Your task to perform on an android device: Go to network settings Image 0: 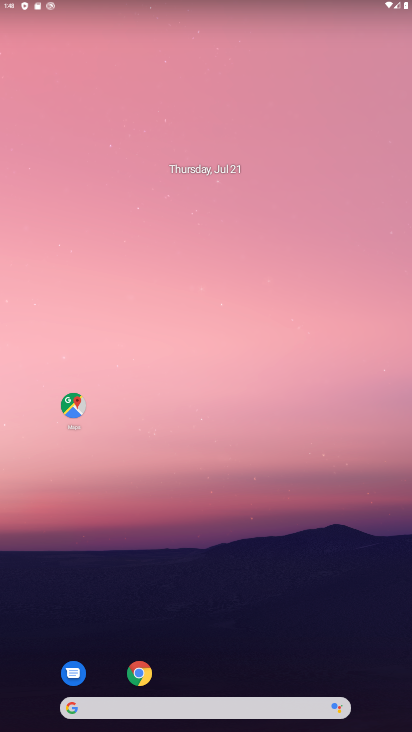
Step 0: drag from (182, 601) to (186, 88)
Your task to perform on an android device: Go to network settings Image 1: 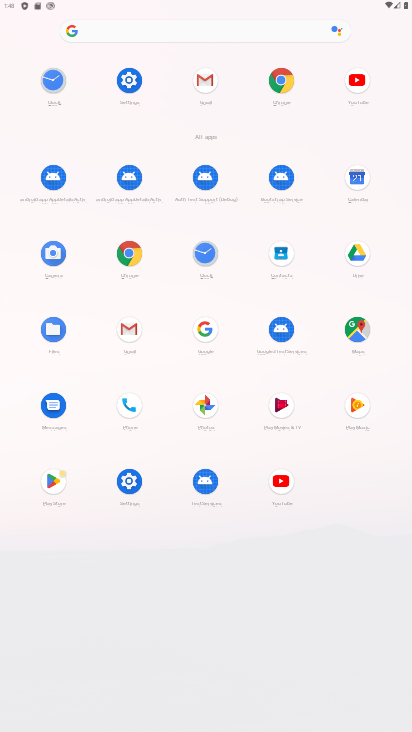
Step 1: click (130, 92)
Your task to perform on an android device: Go to network settings Image 2: 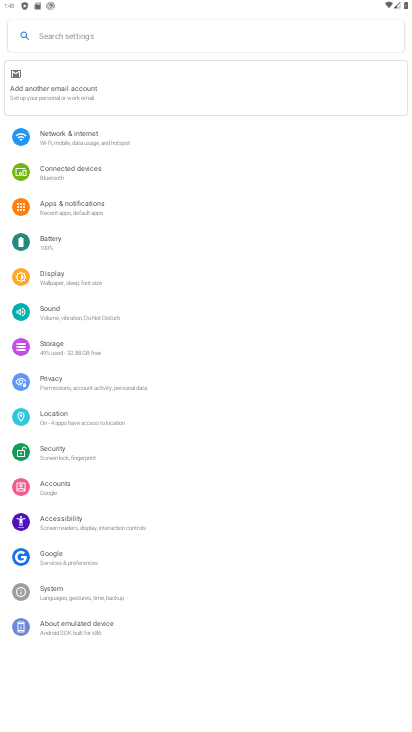
Step 2: click (86, 139)
Your task to perform on an android device: Go to network settings Image 3: 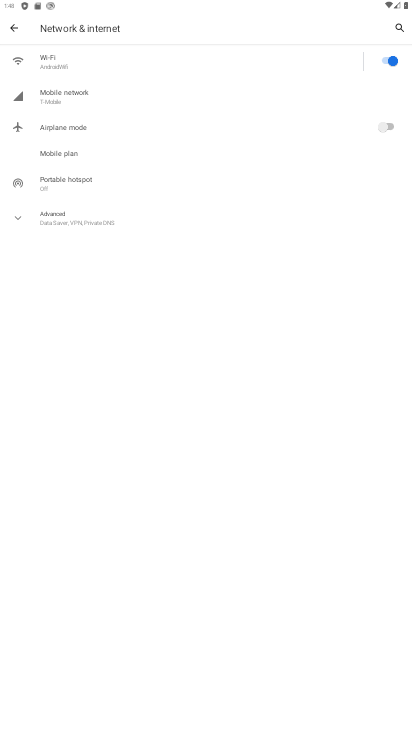
Step 3: task complete